Your task to perform on an android device: stop showing notifications on the lock screen Image 0: 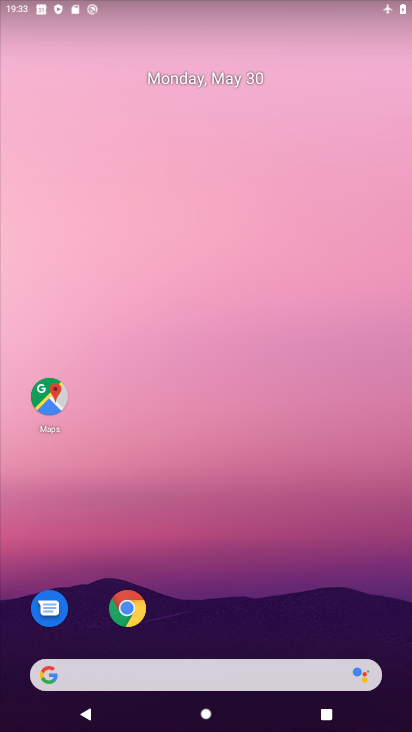
Step 0: drag from (207, 598) to (301, 35)
Your task to perform on an android device: stop showing notifications on the lock screen Image 1: 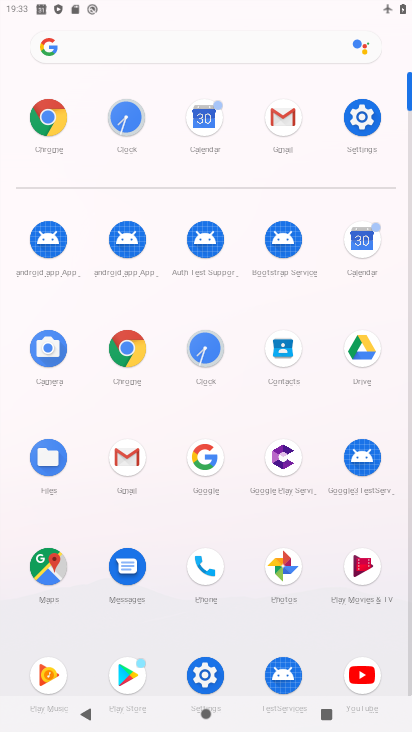
Step 1: click (367, 118)
Your task to perform on an android device: stop showing notifications on the lock screen Image 2: 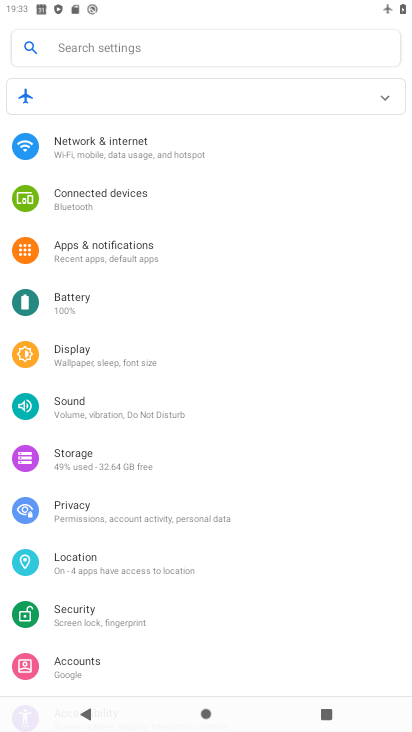
Step 2: click (149, 244)
Your task to perform on an android device: stop showing notifications on the lock screen Image 3: 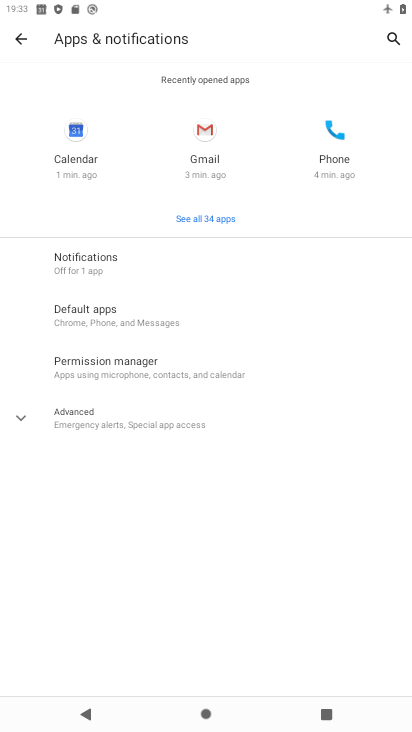
Step 3: click (90, 270)
Your task to perform on an android device: stop showing notifications on the lock screen Image 4: 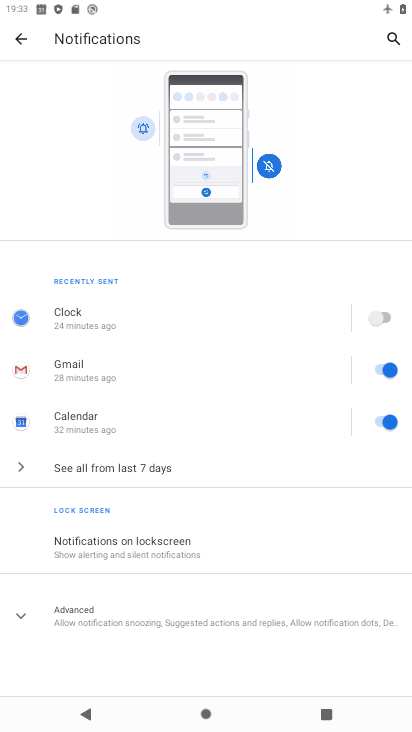
Step 4: click (98, 541)
Your task to perform on an android device: stop showing notifications on the lock screen Image 5: 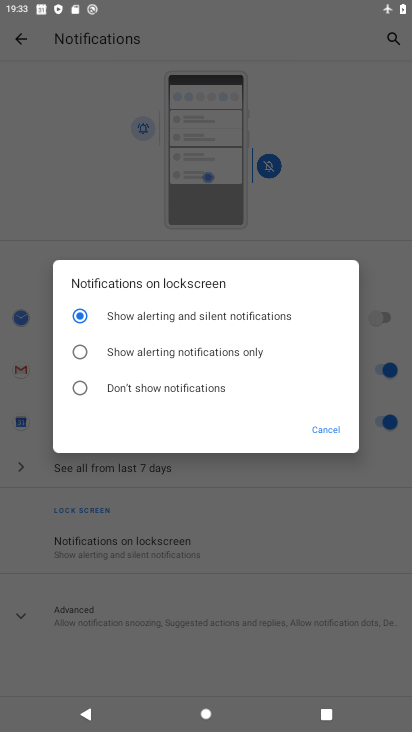
Step 5: click (122, 386)
Your task to perform on an android device: stop showing notifications on the lock screen Image 6: 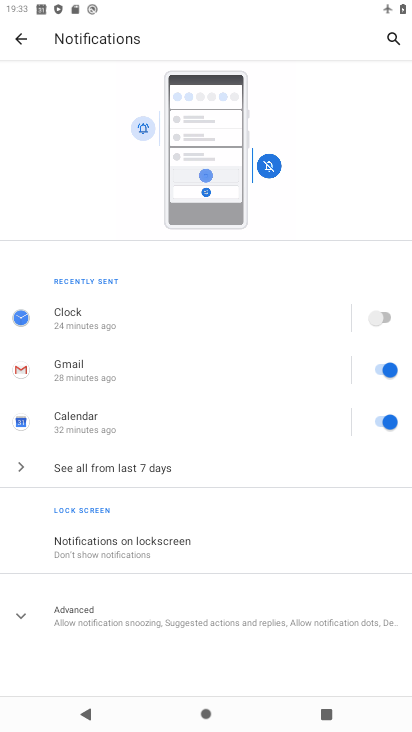
Step 6: task complete